Your task to perform on an android device: create a new album in the google photos Image 0: 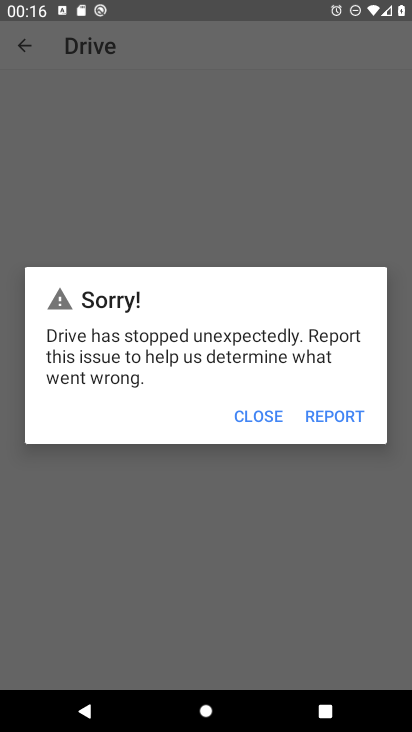
Step 0: press home button
Your task to perform on an android device: create a new album in the google photos Image 1: 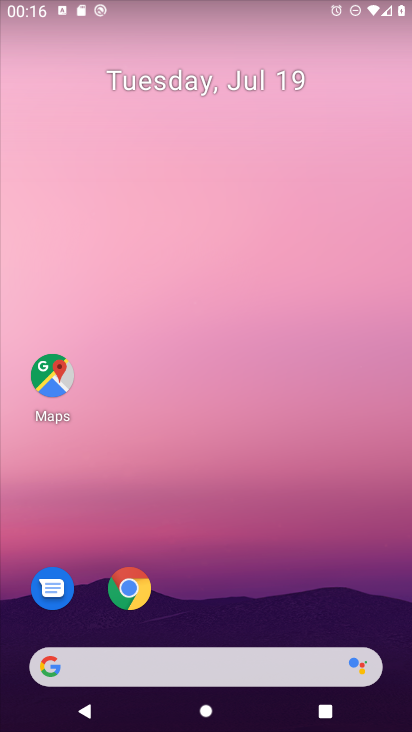
Step 1: drag from (376, 614) to (358, 53)
Your task to perform on an android device: create a new album in the google photos Image 2: 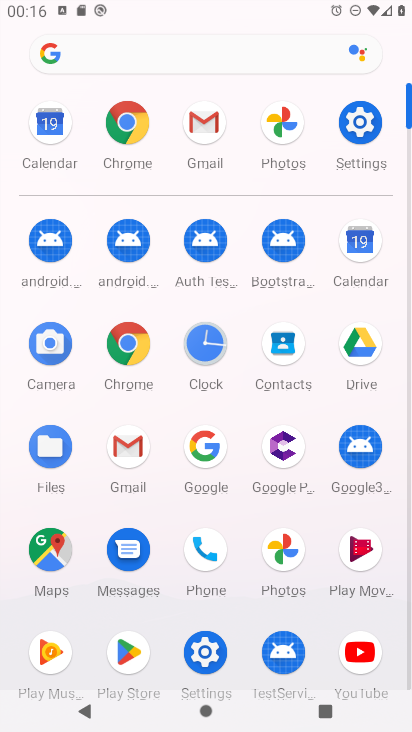
Step 2: click (279, 549)
Your task to perform on an android device: create a new album in the google photos Image 3: 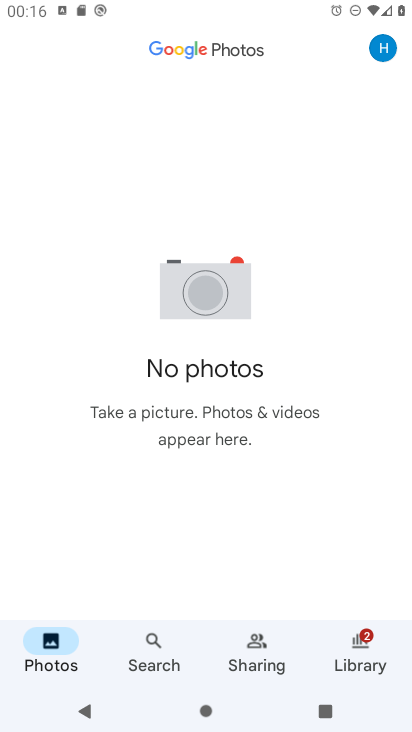
Step 3: click (360, 648)
Your task to perform on an android device: create a new album in the google photos Image 4: 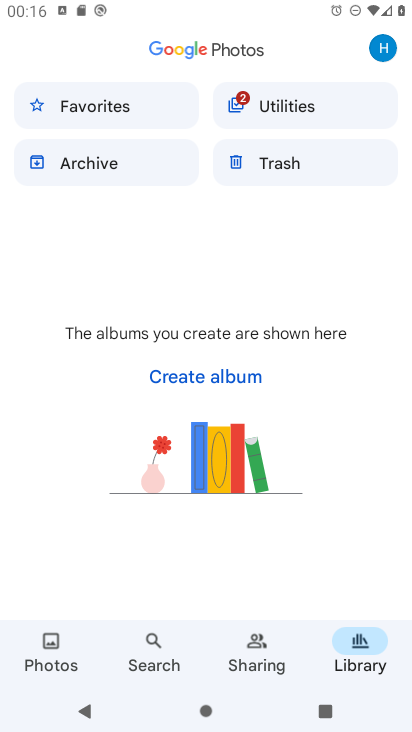
Step 4: click (188, 376)
Your task to perform on an android device: create a new album in the google photos Image 5: 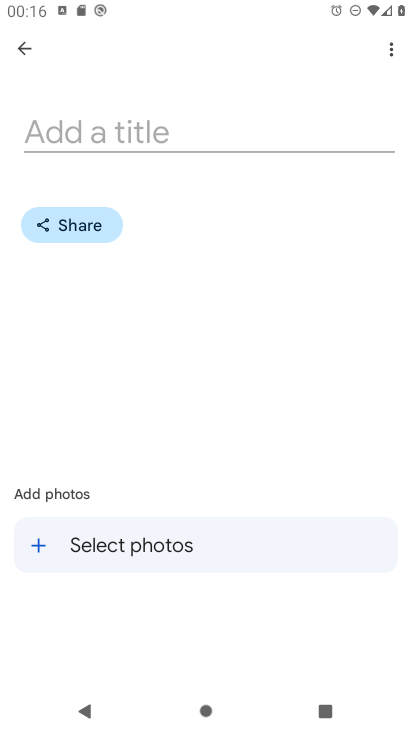
Step 5: click (117, 125)
Your task to perform on an android device: create a new album in the google photos Image 6: 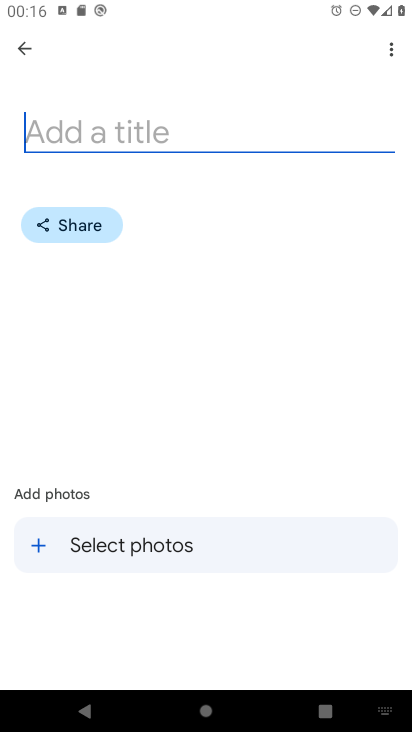
Step 6: type "kjhgfdfg"
Your task to perform on an android device: create a new album in the google photos Image 7: 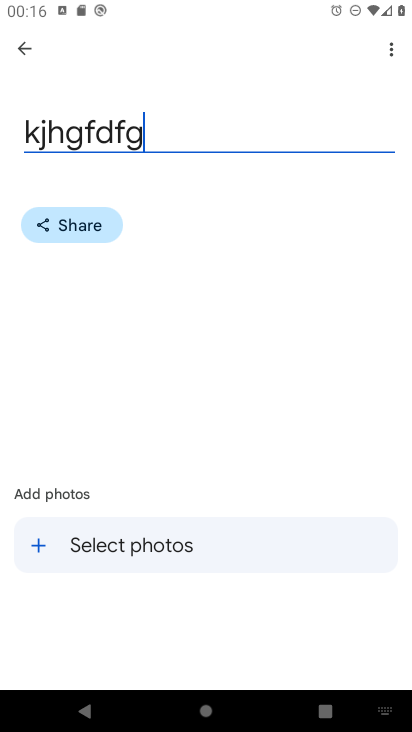
Step 7: click (35, 545)
Your task to perform on an android device: create a new album in the google photos Image 8: 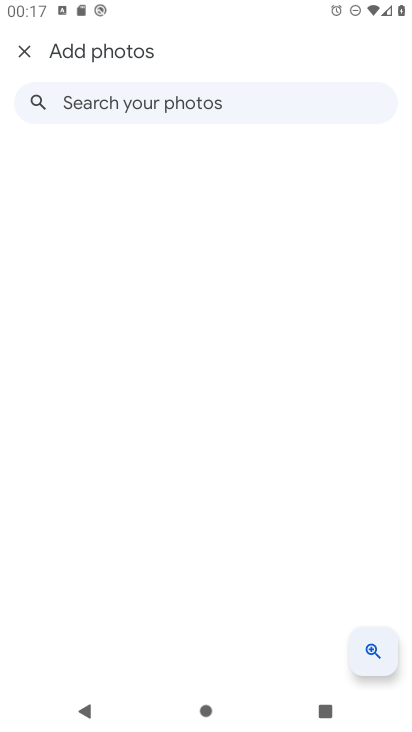
Step 8: task complete